Your task to perform on an android device: turn off priority inbox in the gmail app Image 0: 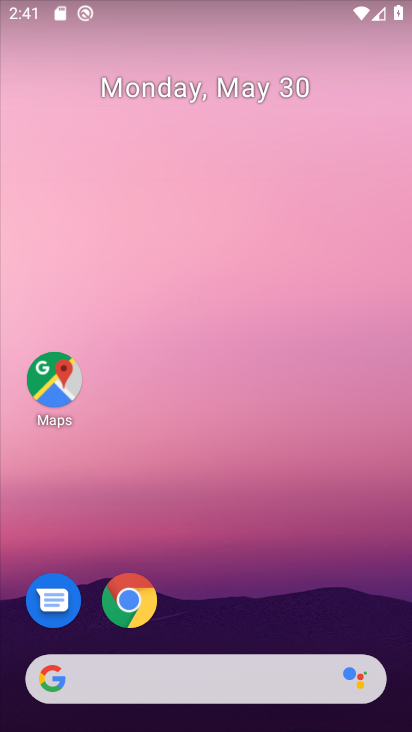
Step 0: drag from (156, 91) to (149, 0)
Your task to perform on an android device: turn off priority inbox in the gmail app Image 1: 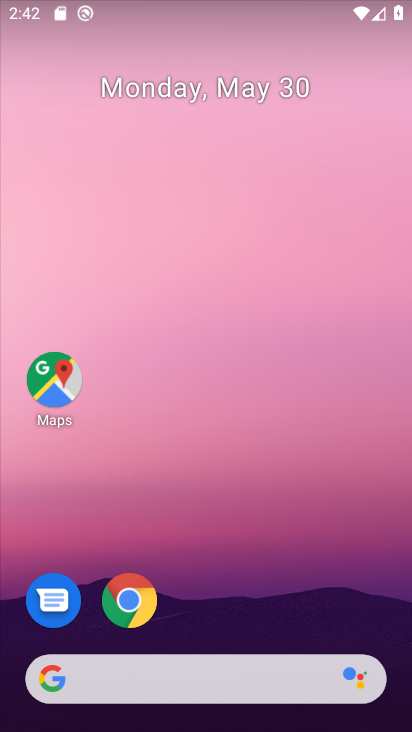
Step 1: drag from (251, 542) to (237, 10)
Your task to perform on an android device: turn off priority inbox in the gmail app Image 2: 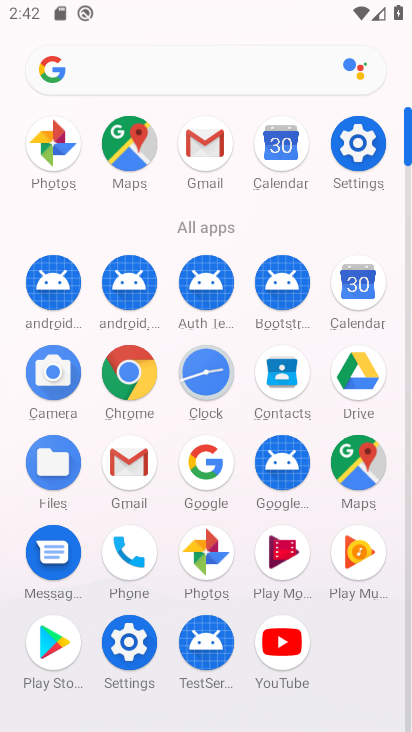
Step 2: click (137, 459)
Your task to perform on an android device: turn off priority inbox in the gmail app Image 3: 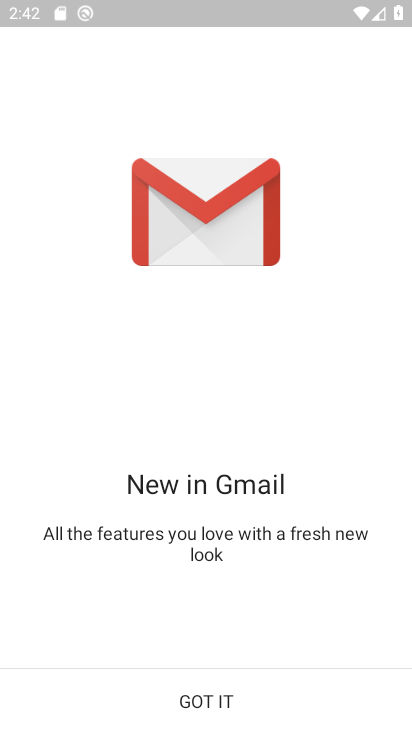
Step 3: click (198, 725)
Your task to perform on an android device: turn off priority inbox in the gmail app Image 4: 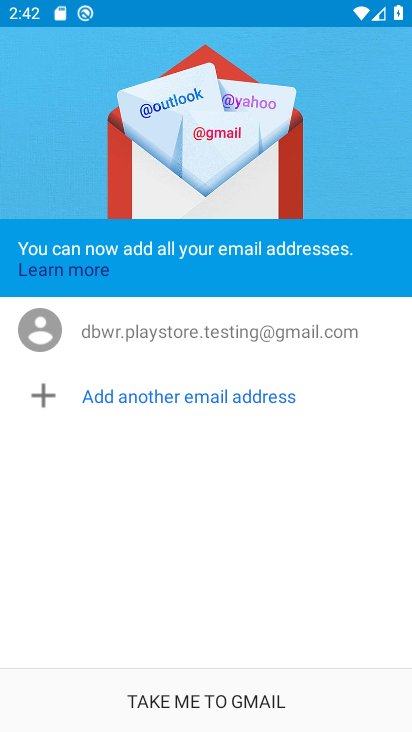
Step 4: click (194, 711)
Your task to perform on an android device: turn off priority inbox in the gmail app Image 5: 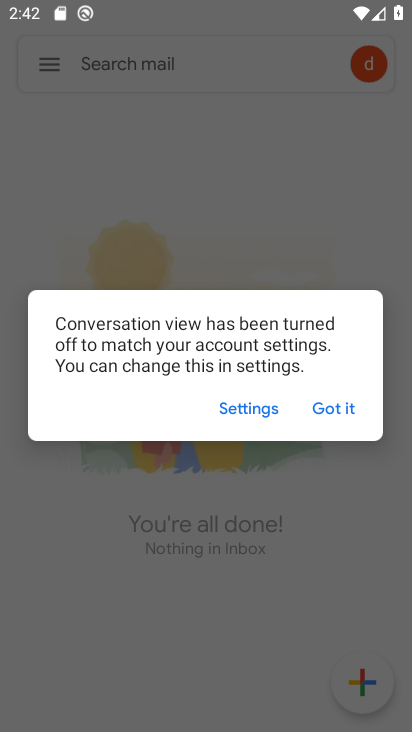
Step 5: click (351, 392)
Your task to perform on an android device: turn off priority inbox in the gmail app Image 6: 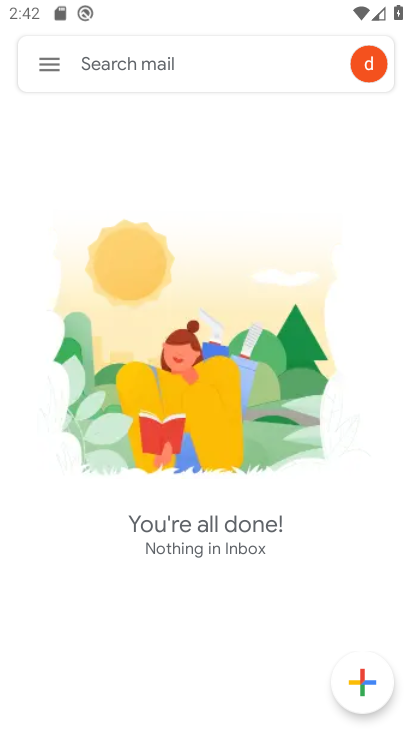
Step 6: click (45, 74)
Your task to perform on an android device: turn off priority inbox in the gmail app Image 7: 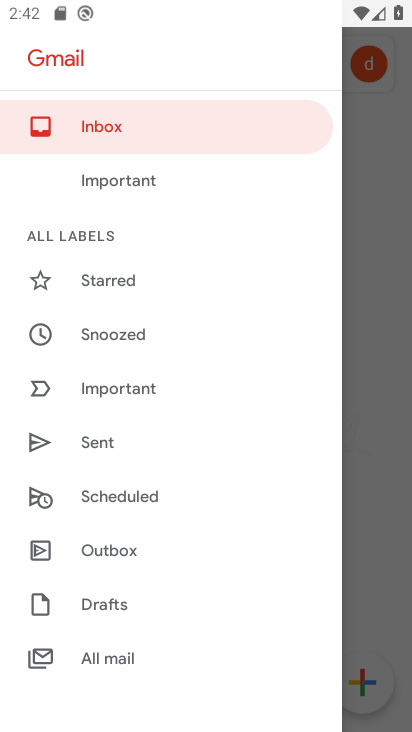
Step 7: drag from (132, 644) to (88, 147)
Your task to perform on an android device: turn off priority inbox in the gmail app Image 8: 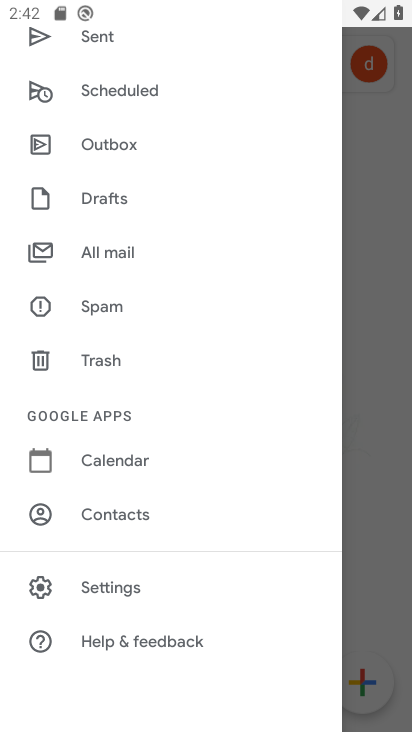
Step 8: click (131, 608)
Your task to perform on an android device: turn off priority inbox in the gmail app Image 9: 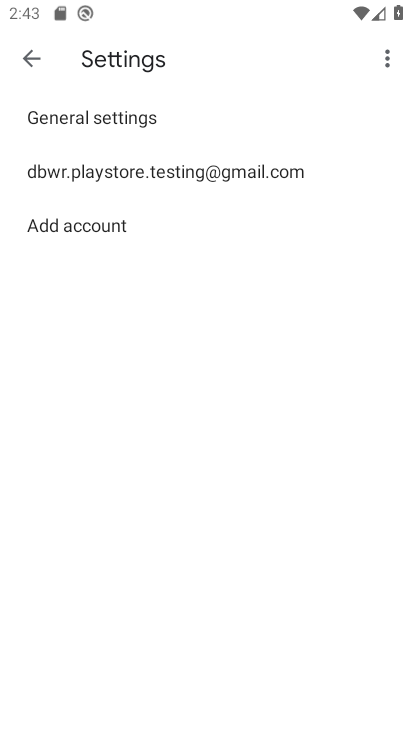
Step 9: click (47, 160)
Your task to perform on an android device: turn off priority inbox in the gmail app Image 10: 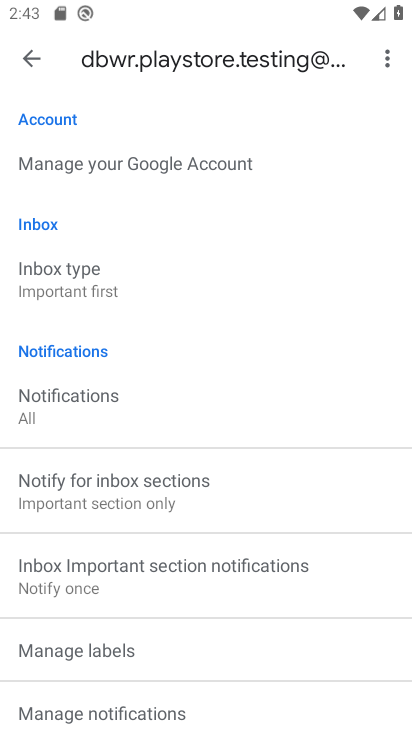
Step 10: drag from (60, 242) to (65, 550)
Your task to perform on an android device: turn off priority inbox in the gmail app Image 11: 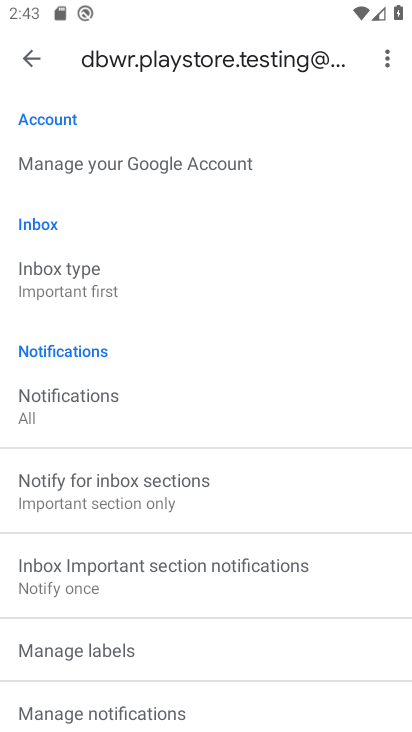
Step 11: click (11, 275)
Your task to perform on an android device: turn off priority inbox in the gmail app Image 12: 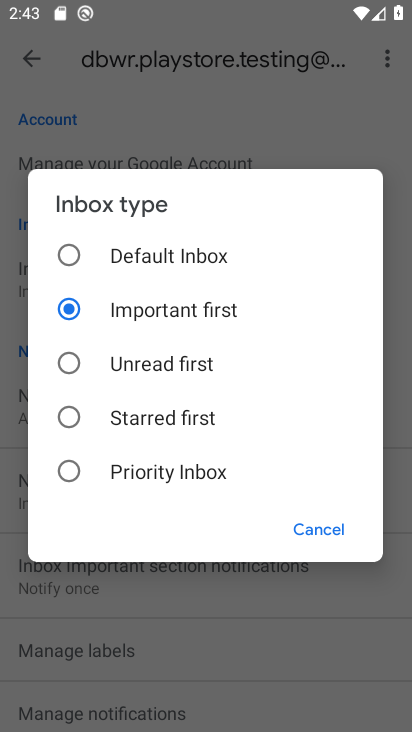
Step 12: task complete